Your task to perform on an android device: Search for "alienware aurora" on bestbuy, select the first entry, and add it to the cart. Image 0: 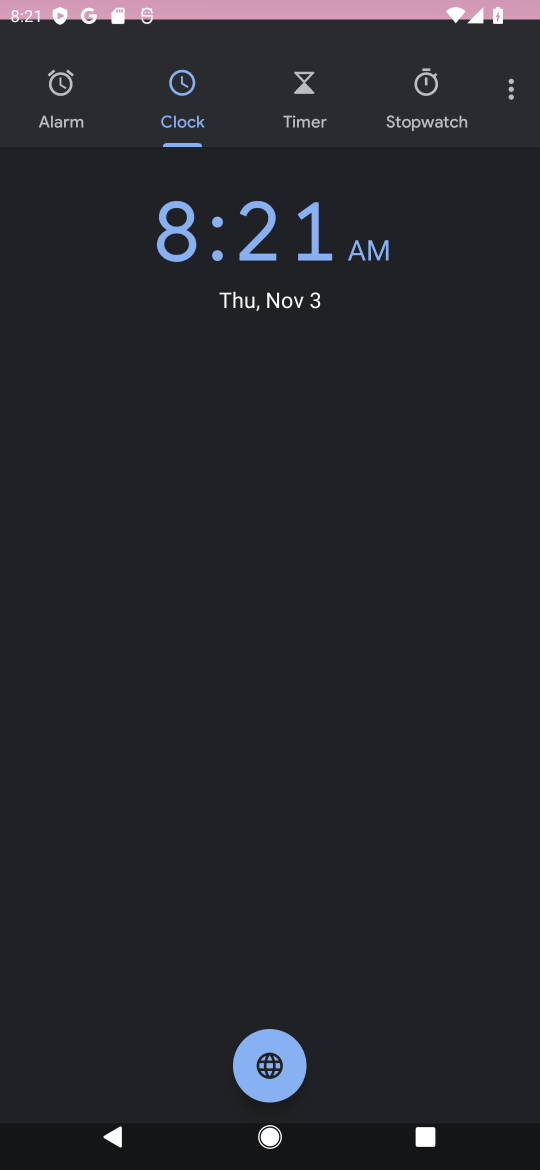
Step 0: press home button
Your task to perform on an android device: Search for "alienware aurora" on bestbuy, select the first entry, and add it to the cart. Image 1: 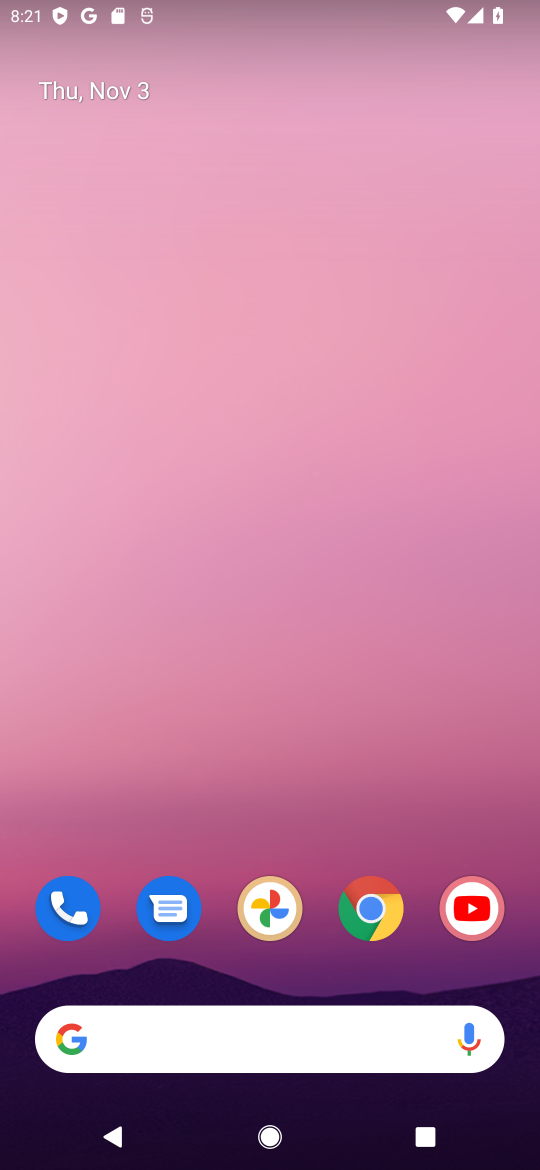
Step 1: click (392, 915)
Your task to perform on an android device: Search for "alienware aurora" on bestbuy, select the first entry, and add it to the cart. Image 2: 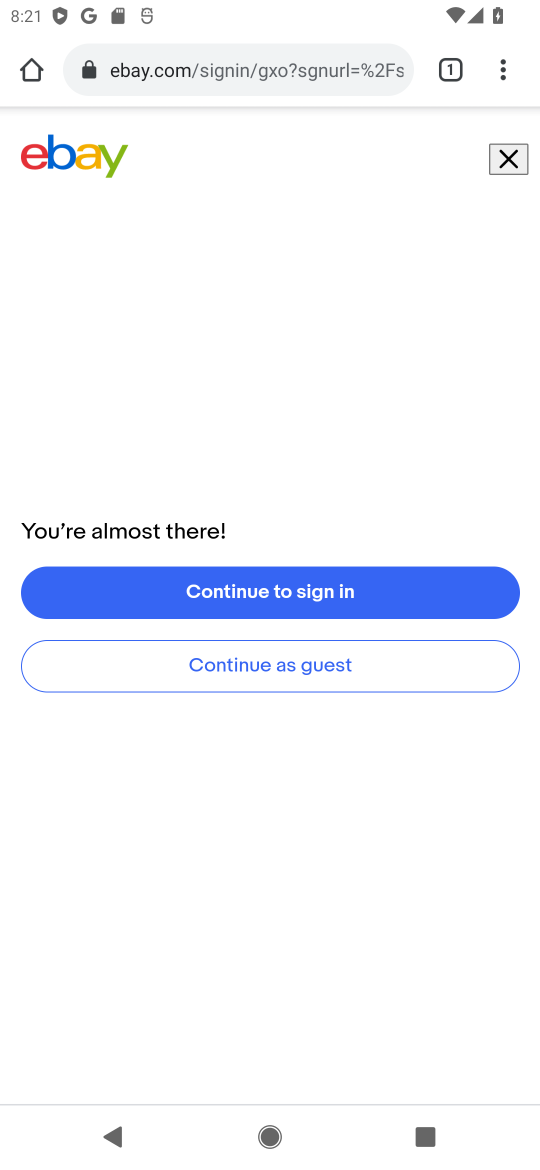
Step 2: click (218, 75)
Your task to perform on an android device: Search for "alienware aurora" on bestbuy, select the first entry, and add it to the cart. Image 3: 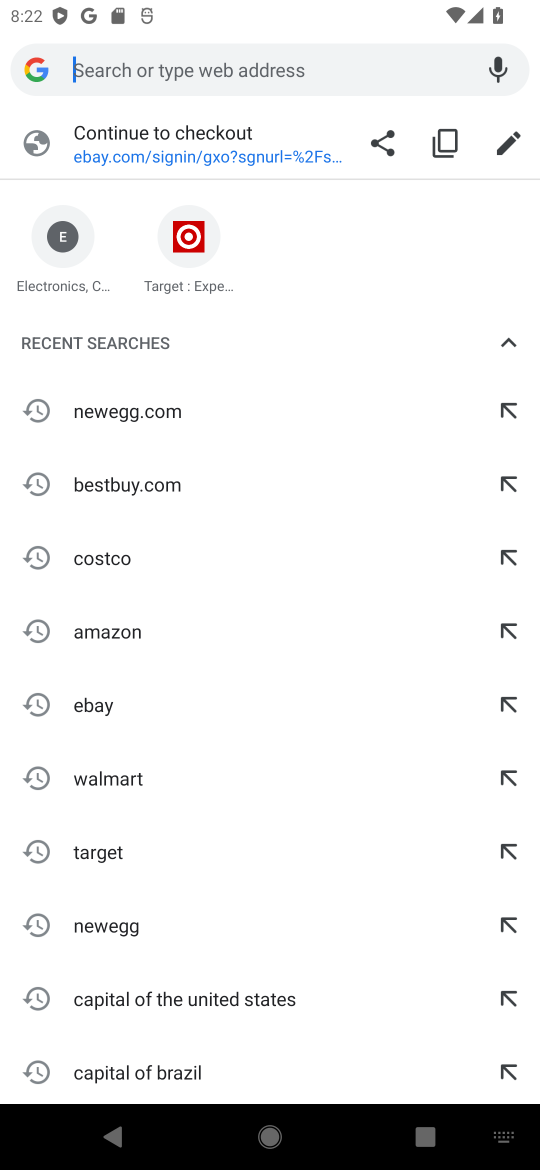
Step 3: click (151, 485)
Your task to perform on an android device: Search for "alienware aurora" on bestbuy, select the first entry, and add it to the cart. Image 4: 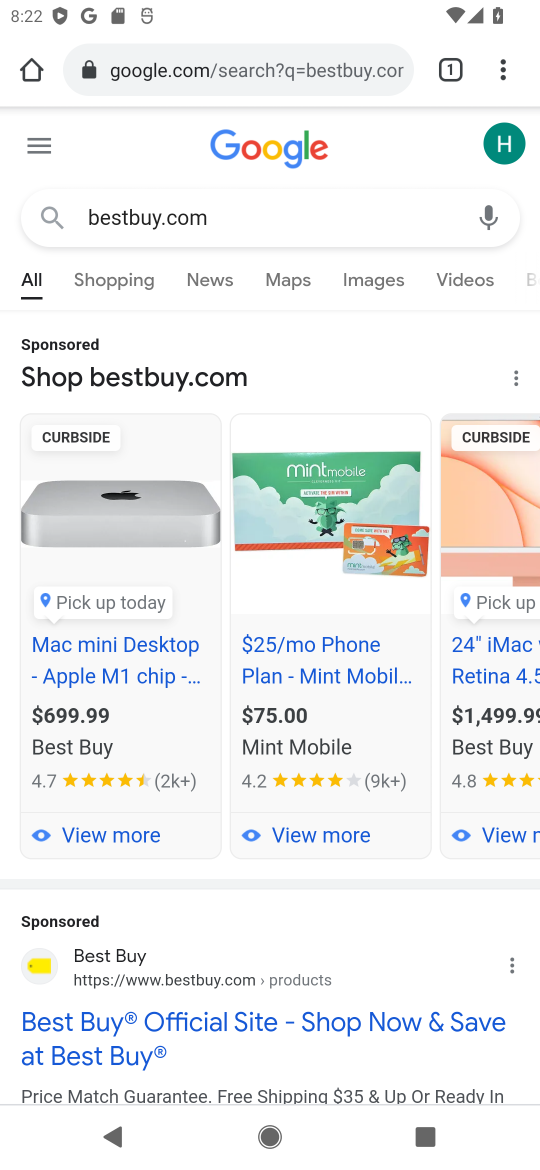
Step 4: click (170, 978)
Your task to perform on an android device: Search for "alienware aurora" on bestbuy, select the first entry, and add it to the cart. Image 5: 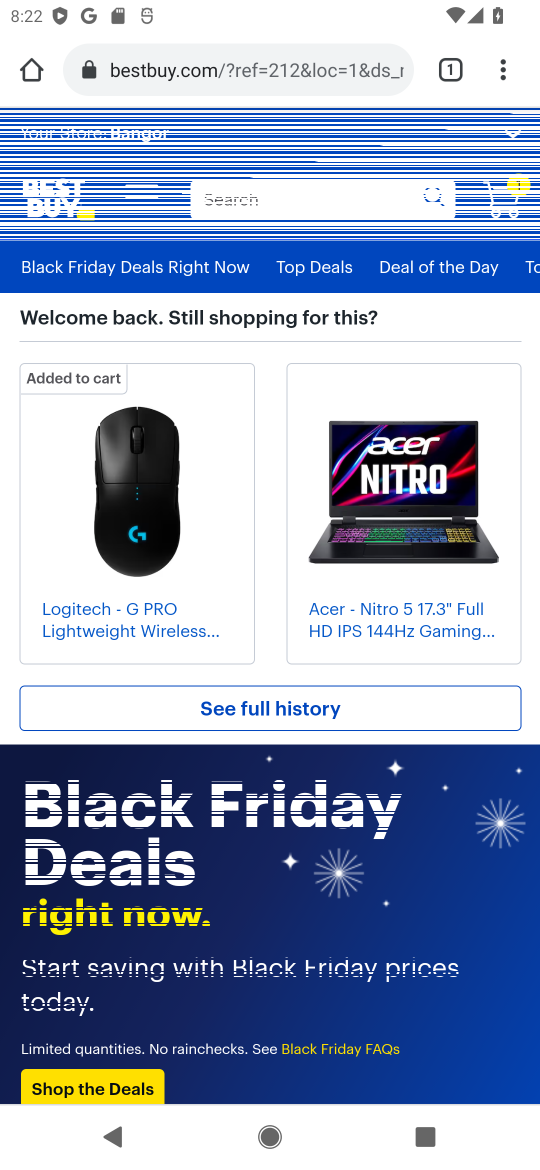
Step 5: click (376, 204)
Your task to perform on an android device: Search for "alienware aurora" on bestbuy, select the first entry, and add it to the cart. Image 6: 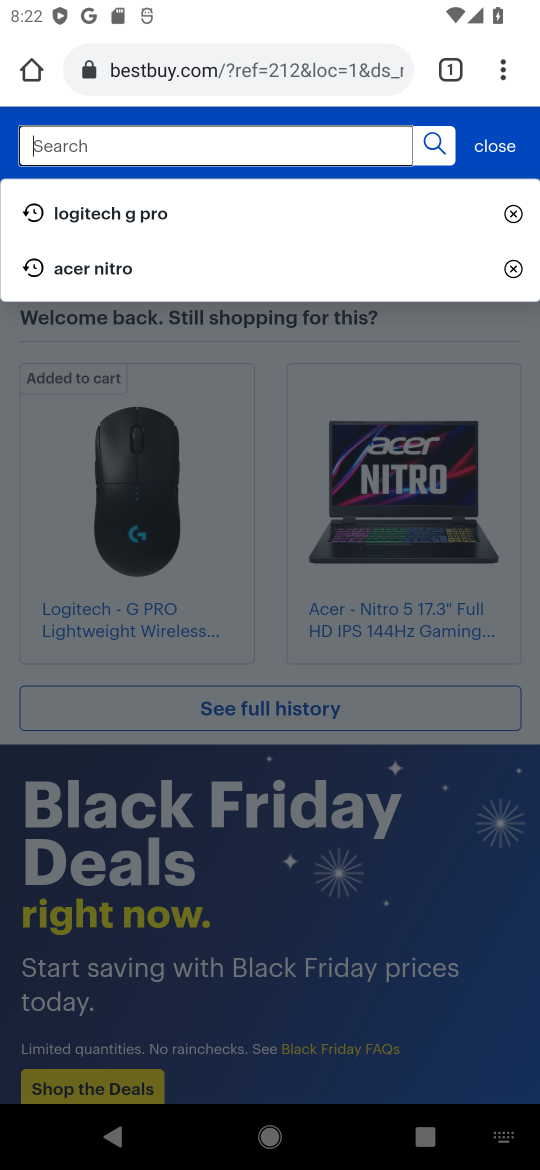
Step 6: type "alienware aurora"
Your task to perform on an android device: Search for "alienware aurora" on bestbuy, select the first entry, and add it to the cart. Image 7: 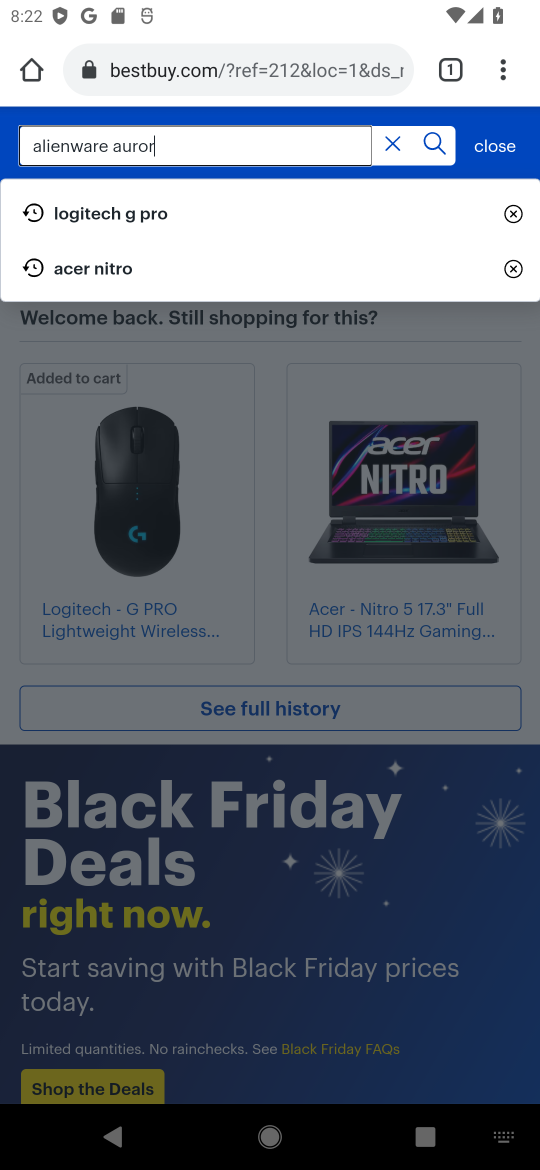
Step 7: press enter
Your task to perform on an android device: Search for "alienware aurora" on bestbuy, select the first entry, and add it to the cart. Image 8: 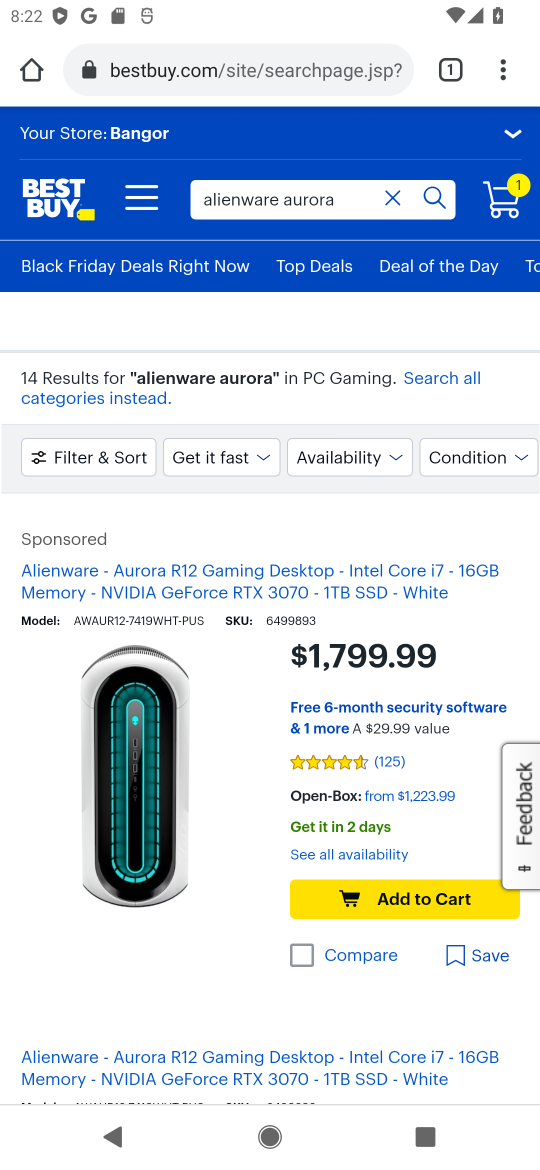
Step 8: click (205, 579)
Your task to perform on an android device: Search for "alienware aurora" on bestbuy, select the first entry, and add it to the cart. Image 9: 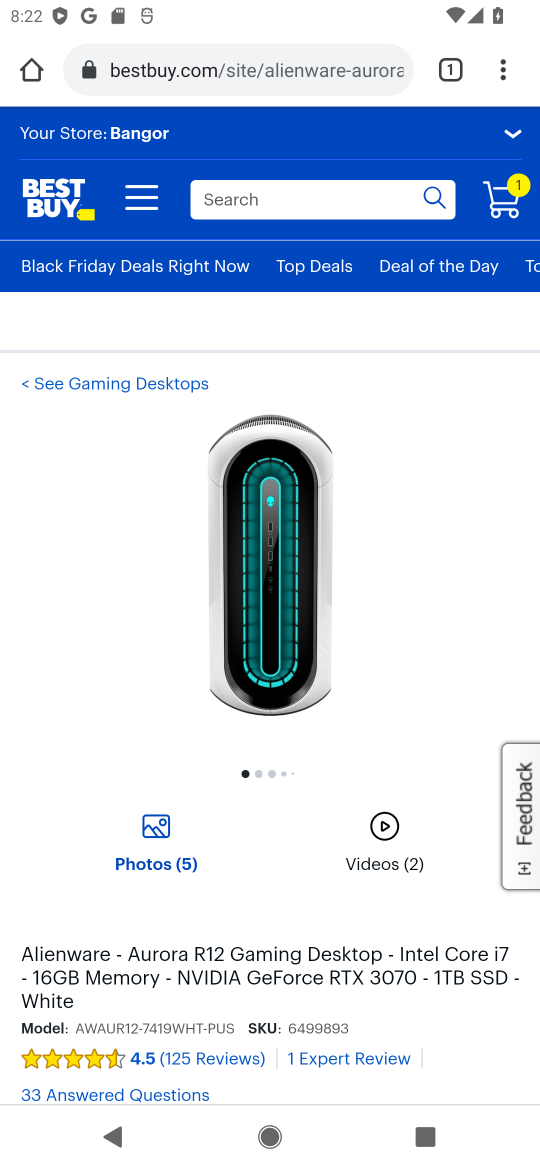
Step 9: drag from (226, 900) to (246, 409)
Your task to perform on an android device: Search for "alienware aurora" on bestbuy, select the first entry, and add it to the cart. Image 10: 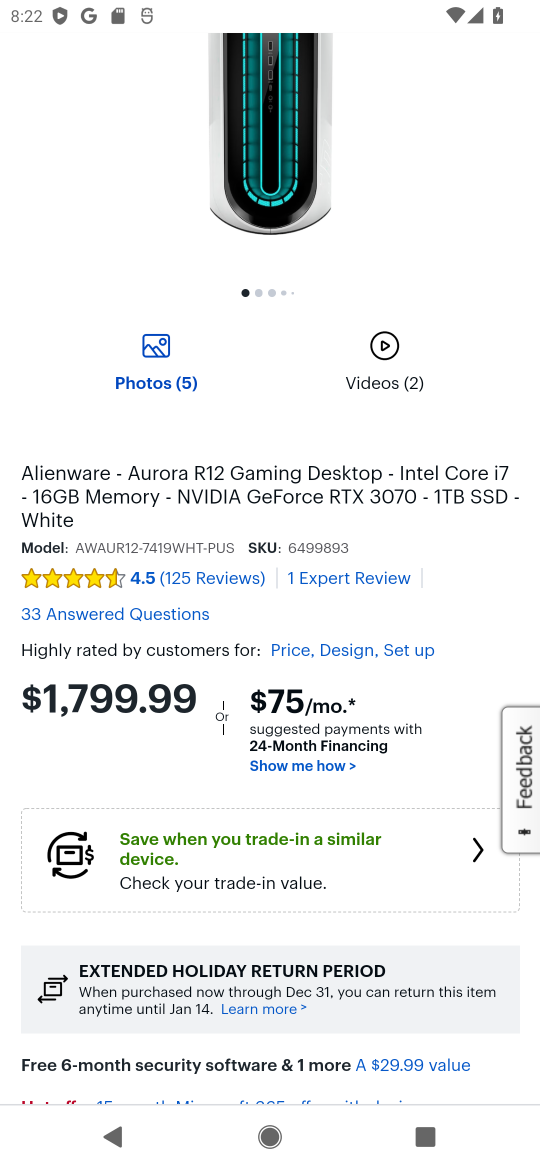
Step 10: drag from (436, 930) to (412, 512)
Your task to perform on an android device: Search for "alienware aurora" on bestbuy, select the first entry, and add it to the cart. Image 11: 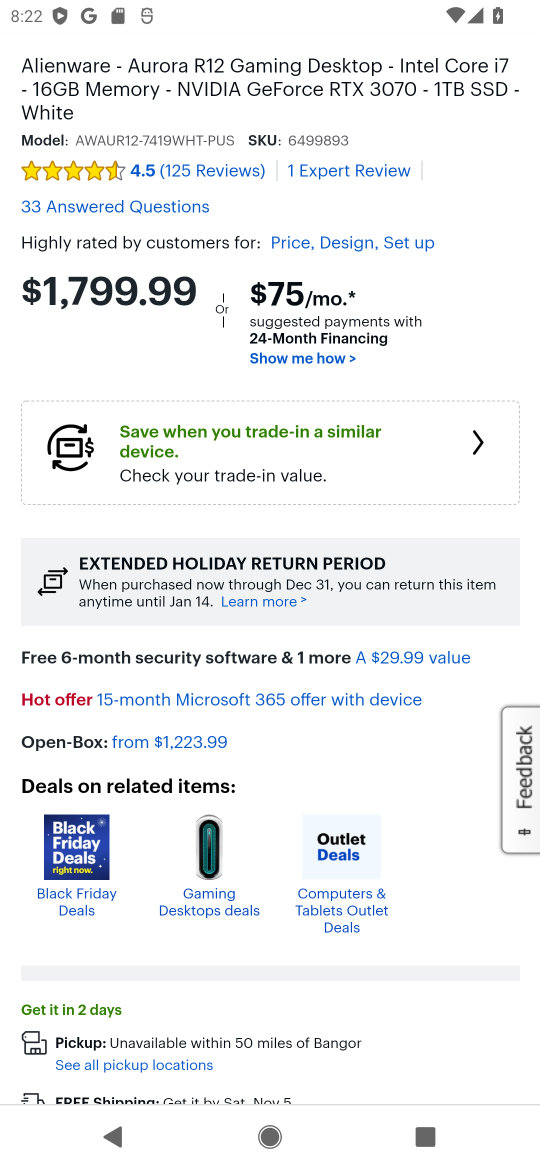
Step 11: drag from (426, 926) to (387, 486)
Your task to perform on an android device: Search for "alienware aurora" on bestbuy, select the first entry, and add it to the cart. Image 12: 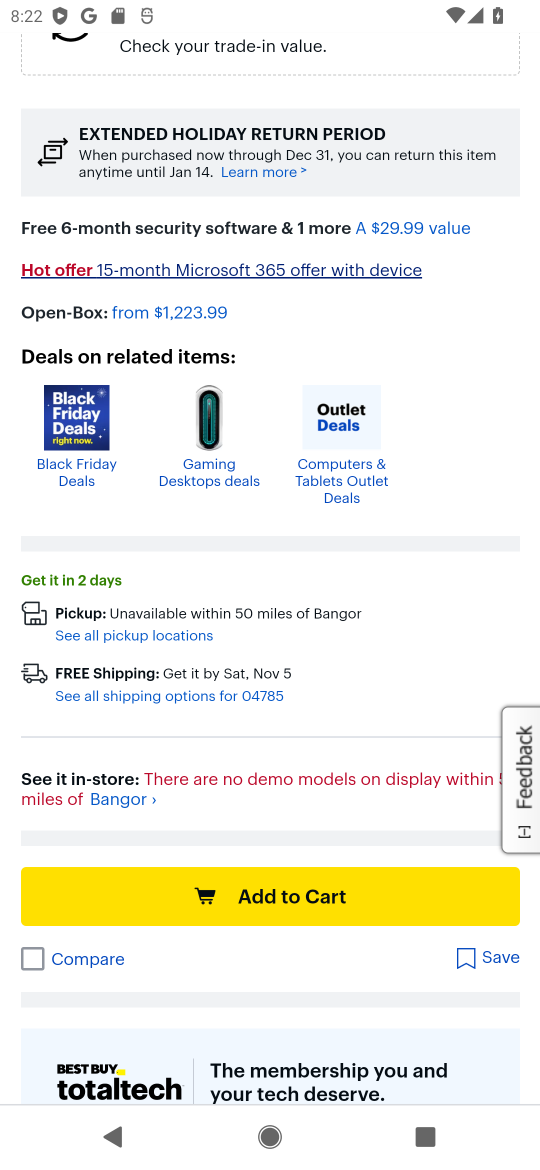
Step 12: click (315, 890)
Your task to perform on an android device: Search for "alienware aurora" on bestbuy, select the first entry, and add it to the cart. Image 13: 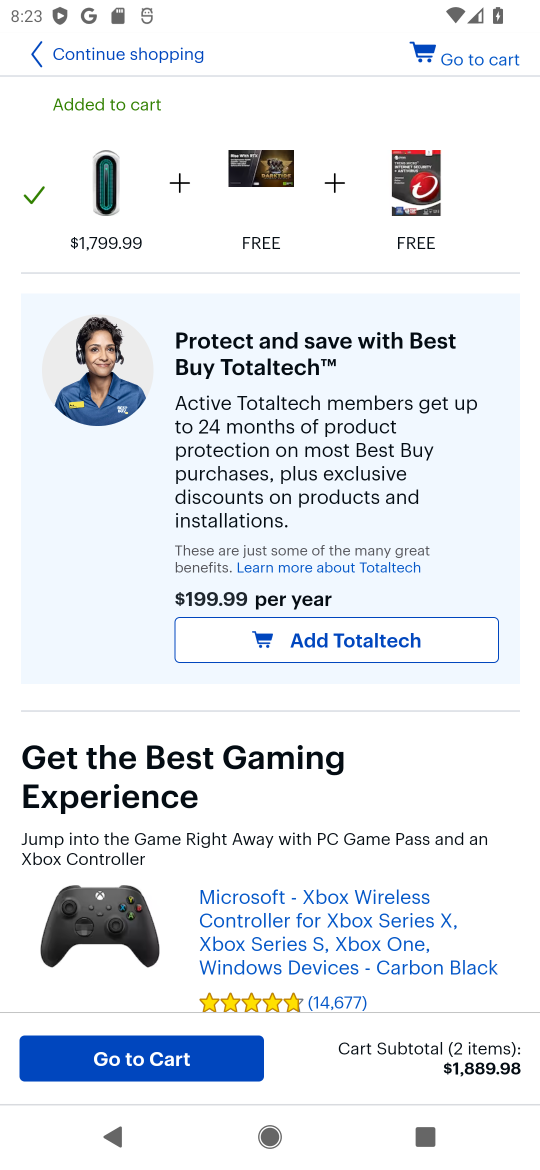
Step 13: task complete